Your task to perform on an android device: turn pop-ups off in chrome Image 0: 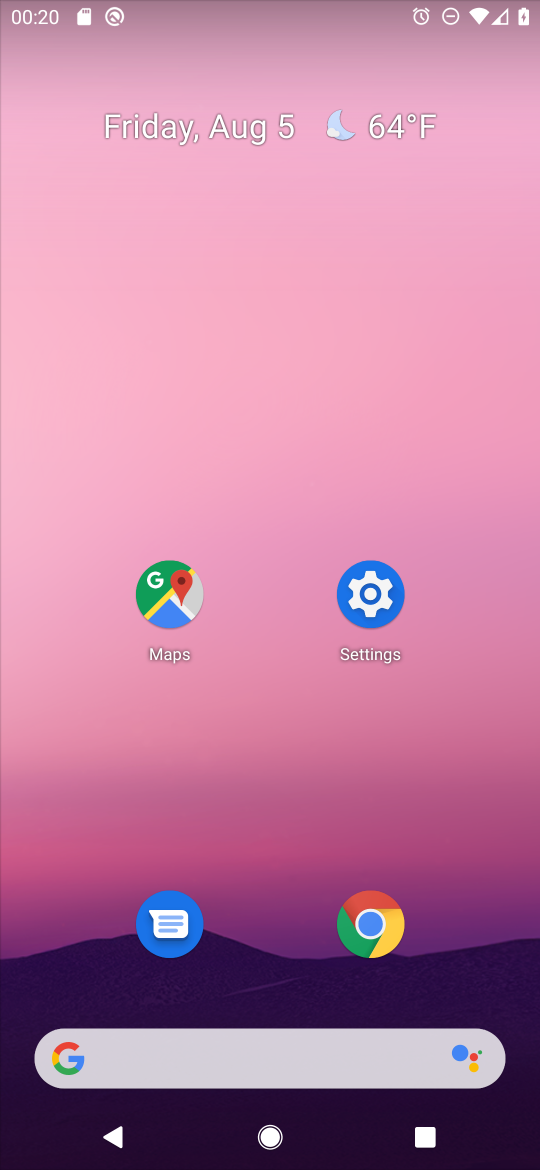
Step 0: click (383, 938)
Your task to perform on an android device: turn pop-ups off in chrome Image 1: 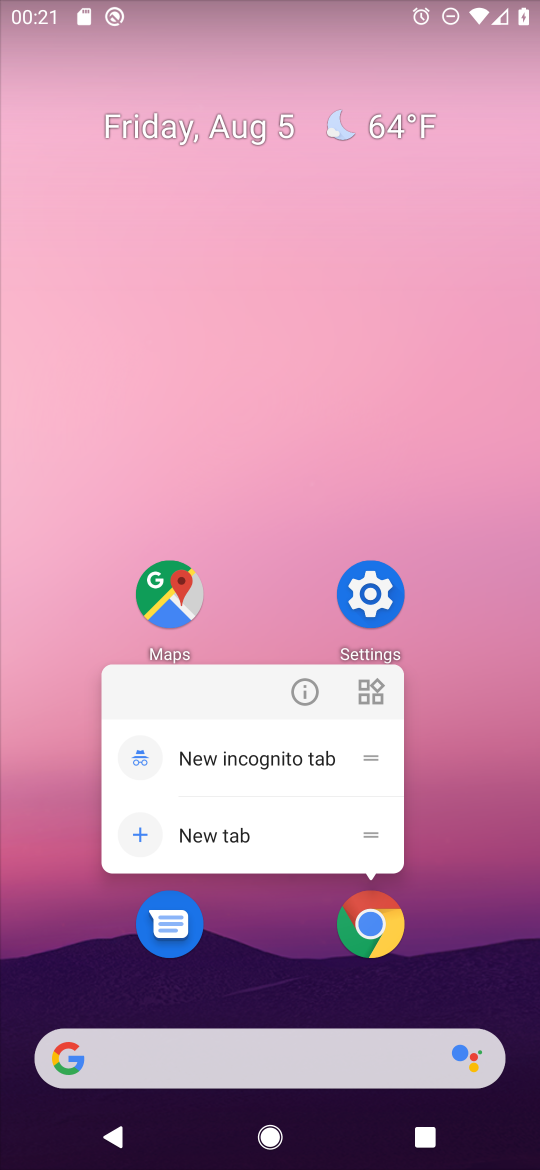
Step 1: click (361, 916)
Your task to perform on an android device: turn pop-ups off in chrome Image 2: 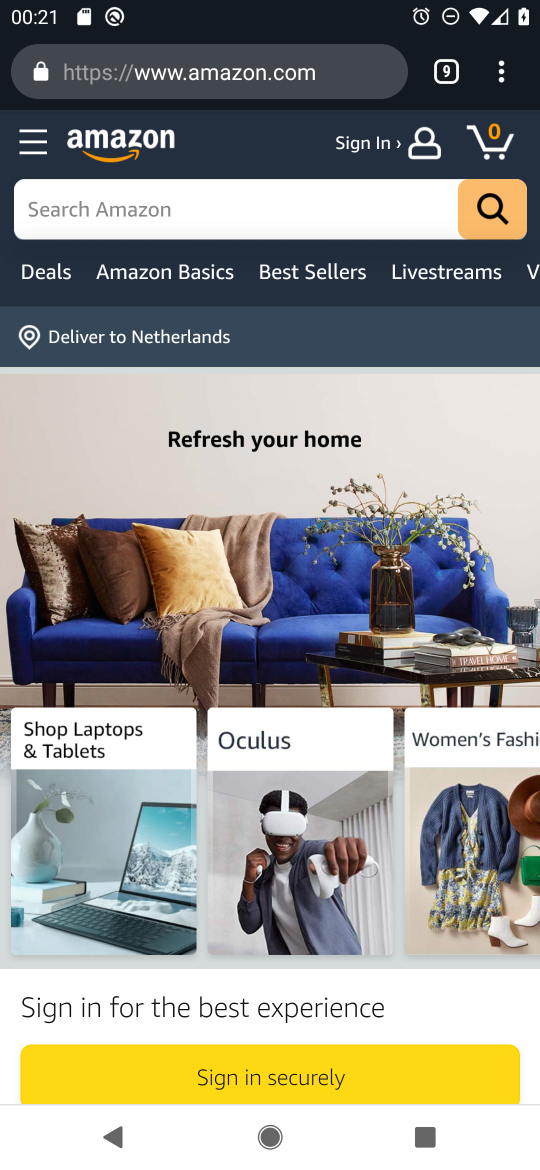
Step 2: drag from (507, 87) to (298, 855)
Your task to perform on an android device: turn pop-ups off in chrome Image 3: 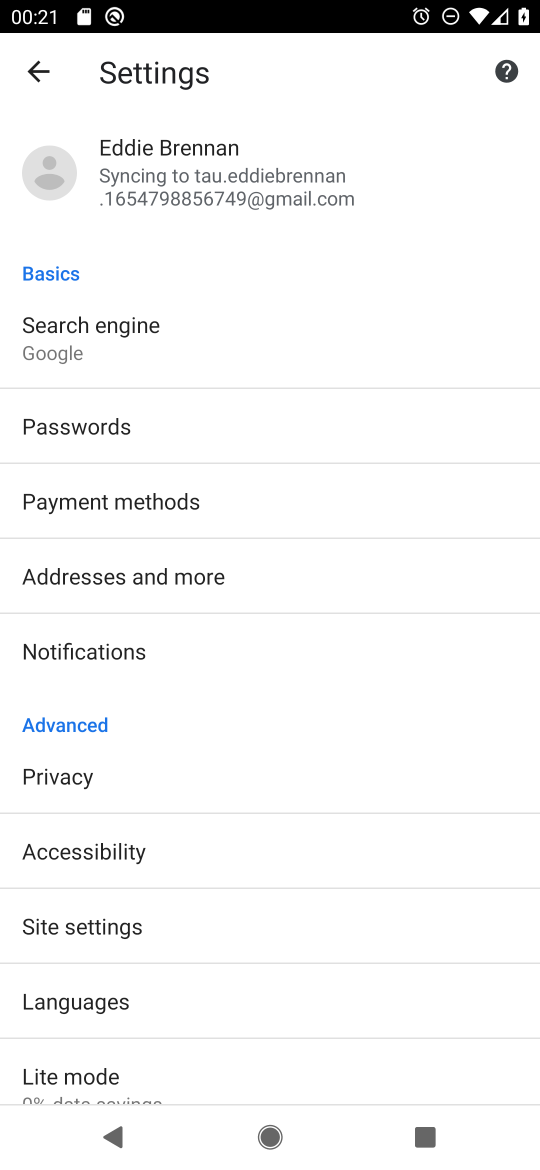
Step 3: click (138, 921)
Your task to perform on an android device: turn pop-ups off in chrome Image 4: 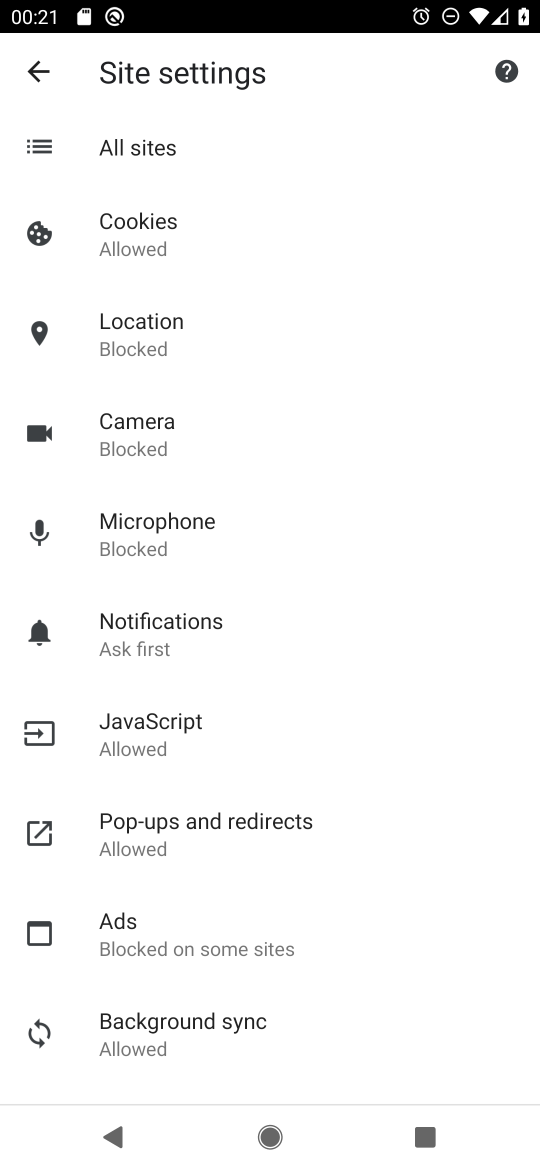
Step 4: click (203, 820)
Your task to perform on an android device: turn pop-ups off in chrome Image 5: 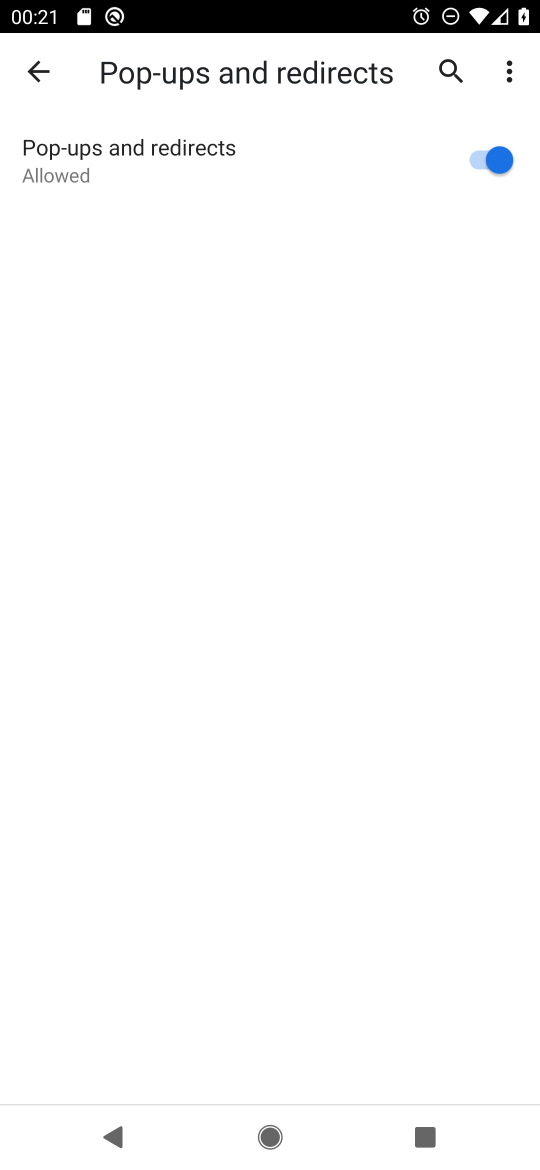
Step 5: click (482, 153)
Your task to perform on an android device: turn pop-ups off in chrome Image 6: 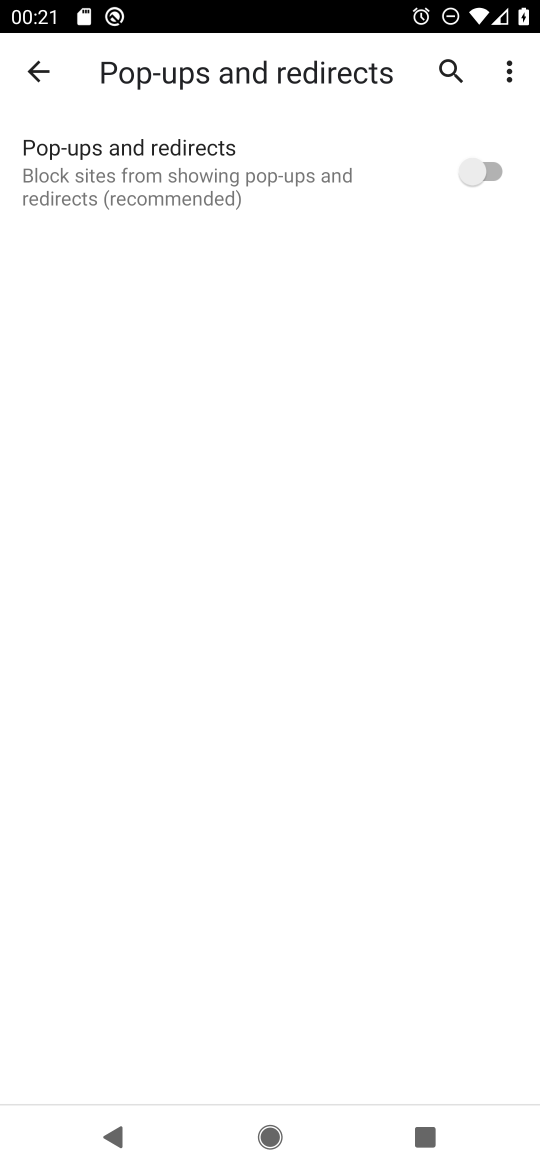
Step 6: task complete